Your task to perform on an android device: Open battery settings Image 0: 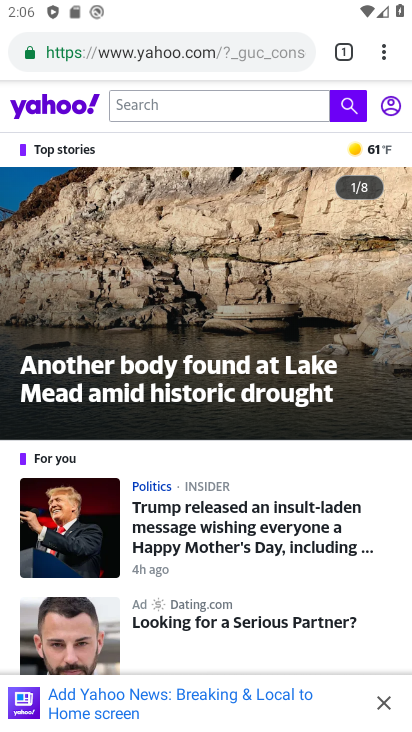
Step 0: drag from (304, 604) to (308, 297)
Your task to perform on an android device: Open battery settings Image 1: 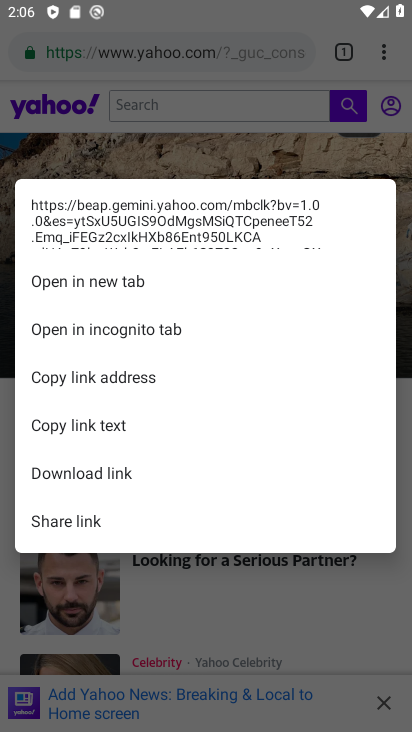
Step 1: press home button
Your task to perform on an android device: Open battery settings Image 2: 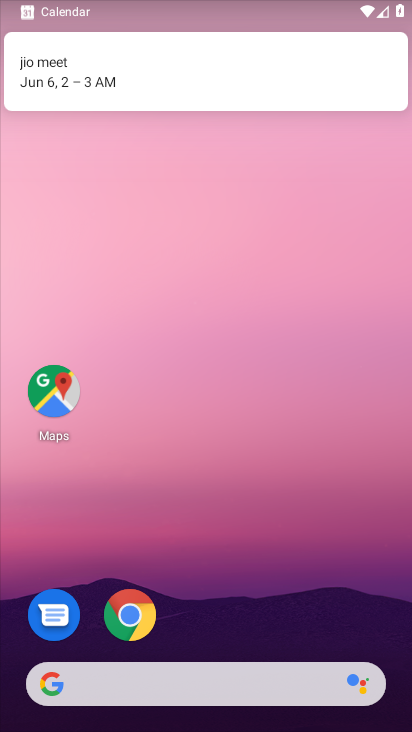
Step 2: drag from (240, 618) to (233, 218)
Your task to perform on an android device: Open battery settings Image 3: 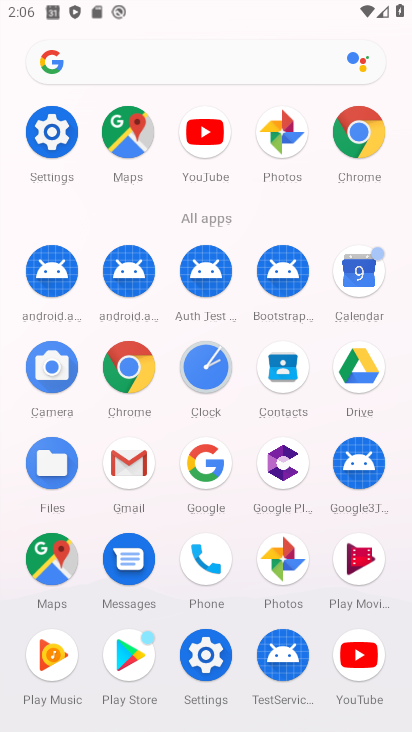
Step 3: click (61, 148)
Your task to perform on an android device: Open battery settings Image 4: 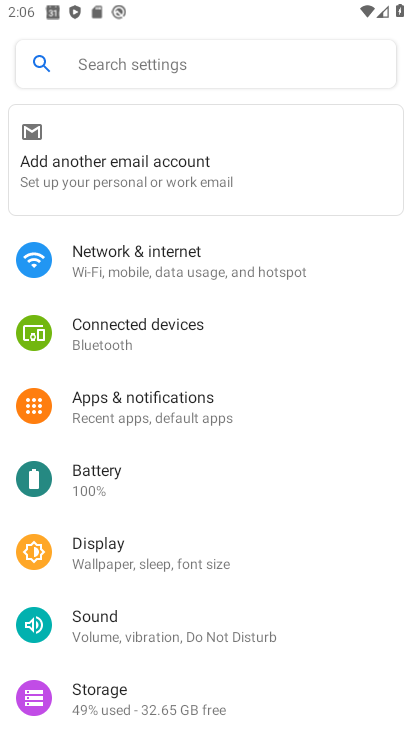
Step 4: click (140, 486)
Your task to perform on an android device: Open battery settings Image 5: 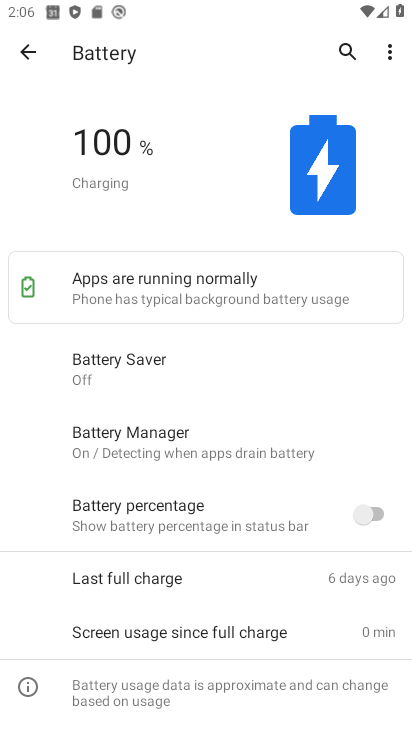
Step 5: task complete